Your task to perform on an android device: delete browsing data in the chrome app Image 0: 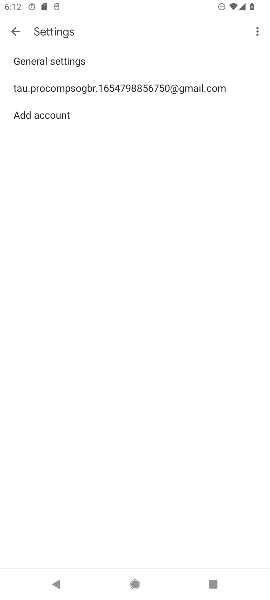
Step 0: press back button
Your task to perform on an android device: delete browsing data in the chrome app Image 1: 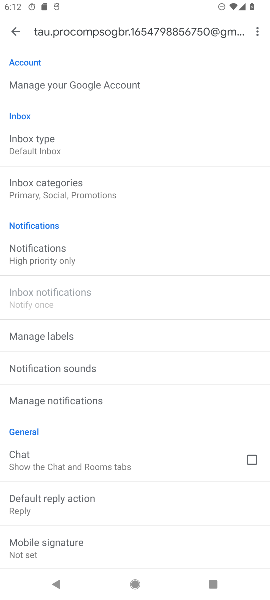
Step 1: click (15, 28)
Your task to perform on an android device: delete browsing data in the chrome app Image 2: 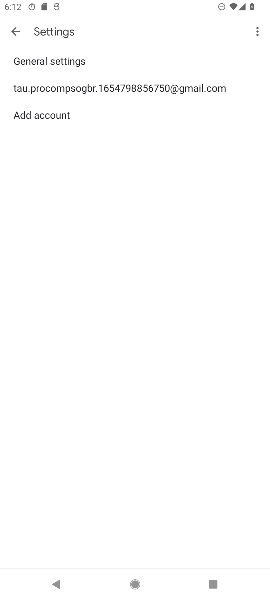
Step 2: click (12, 26)
Your task to perform on an android device: delete browsing data in the chrome app Image 3: 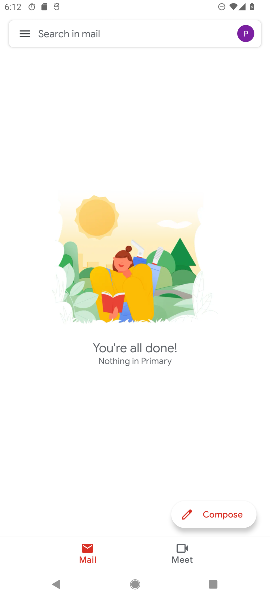
Step 3: press back button
Your task to perform on an android device: delete browsing data in the chrome app Image 4: 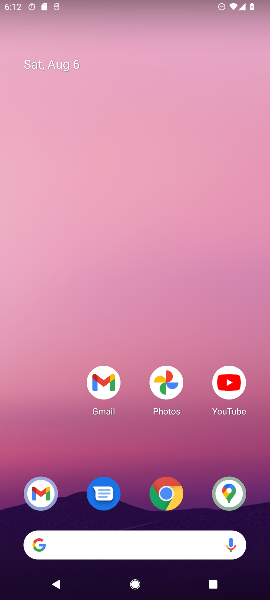
Step 4: click (135, 120)
Your task to perform on an android device: delete browsing data in the chrome app Image 5: 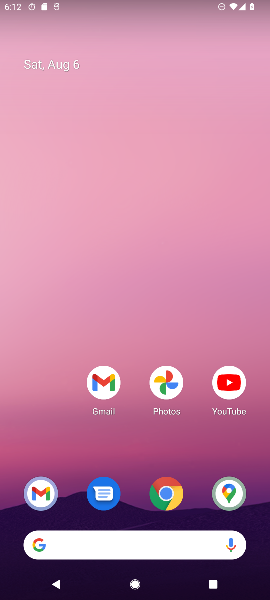
Step 5: drag from (167, 390) to (137, 179)
Your task to perform on an android device: delete browsing data in the chrome app Image 6: 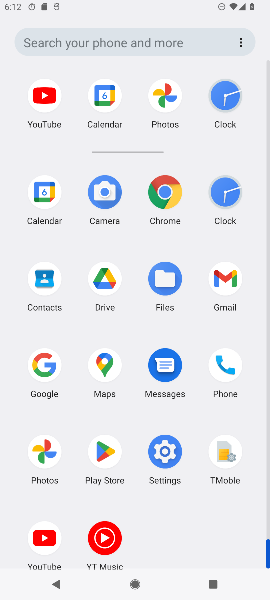
Step 6: click (157, 196)
Your task to perform on an android device: delete browsing data in the chrome app Image 7: 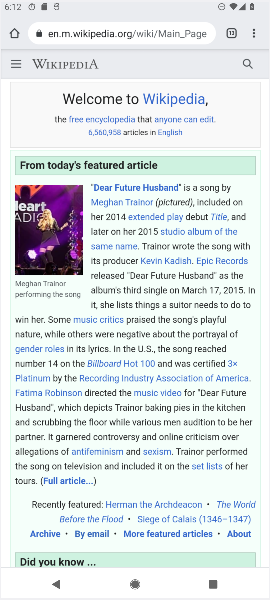
Step 7: click (161, 201)
Your task to perform on an android device: delete browsing data in the chrome app Image 8: 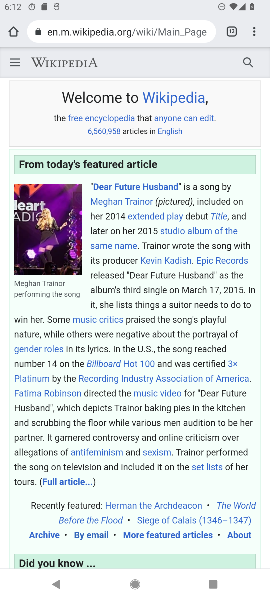
Step 8: drag from (254, 30) to (166, 420)
Your task to perform on an android device: delete browsing data in the chrome app Image 9: 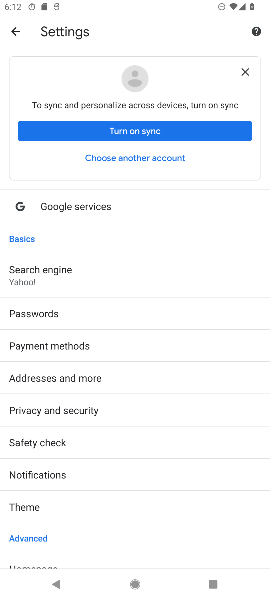
Step 9: drag from (88, 512) to (51, 222)
Your task to perform on an android device: delete browsing data in the chrome app Image 10: 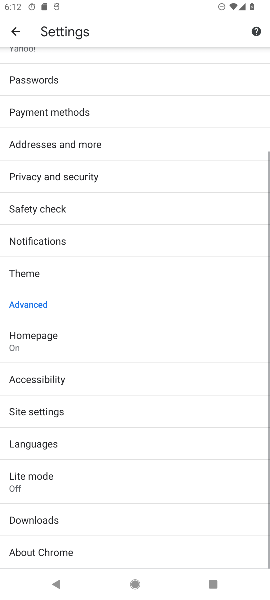
Step 10: drag from (117, 418) to (80, 177)
Your task to perform on an android device: delete browsing data in the chrome app Image 11: 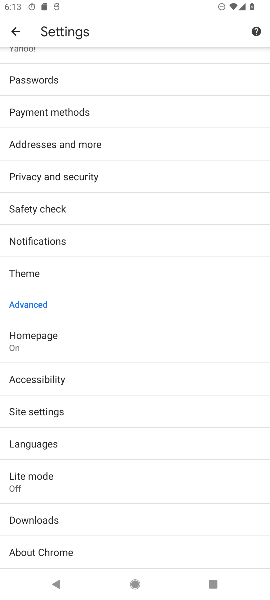
Step 11: drag from (36, 106) to (64, 408)
Your task to perform on an android device: delete browsing data in the chrome app Image 12: 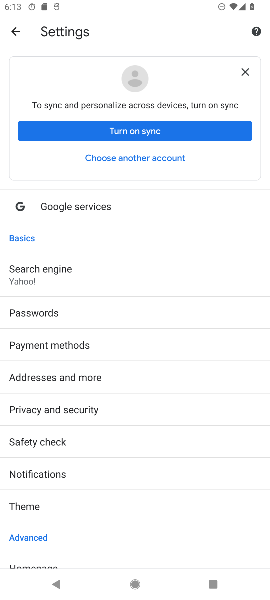
Step 12: click (15, 29)
Your task to perform on an android device: delete browsing data in the chrome app Image 13: 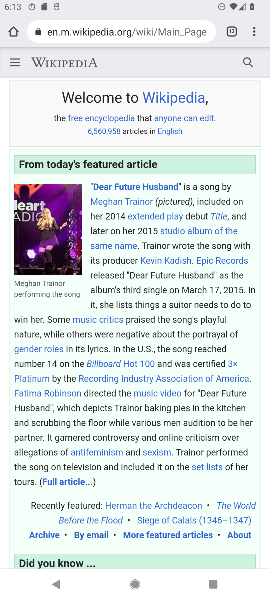
Step 13: drag from (248, 34) to (163, 162)
Your task to perform on an android device: delete browsing data in the chrome app Image 14: 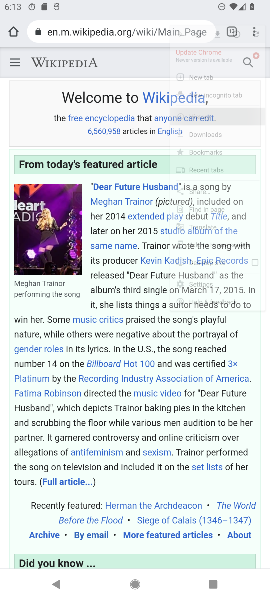
Step 14: click (163, 165)
Your task to perform on an android device: delete browsing data in the chrome app Image 15: 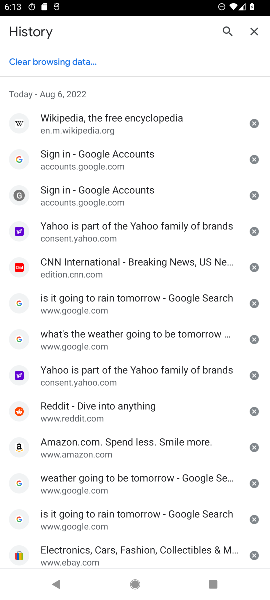
Step 15: click (60, 56)
Your task to perform on an android device: delete browsing data in the chrome app Image 16: 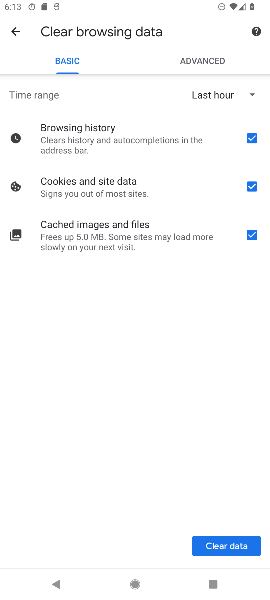
Step 16: click (235, 549)
Your task to perform on an android device: delete browsing data in the chrome app Image 17: 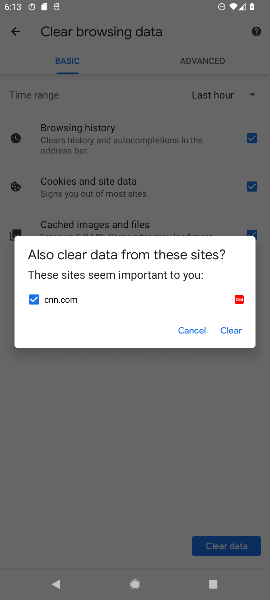
Step 17: click (229, 334)
Your task to perform on an android device: delete browsing data in the chrome app Image 18: 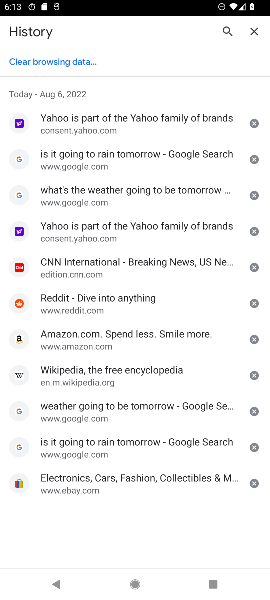
Step 18: task complete